Your task to perform on an android device: turn on the 12-hour format for clock Image 0: 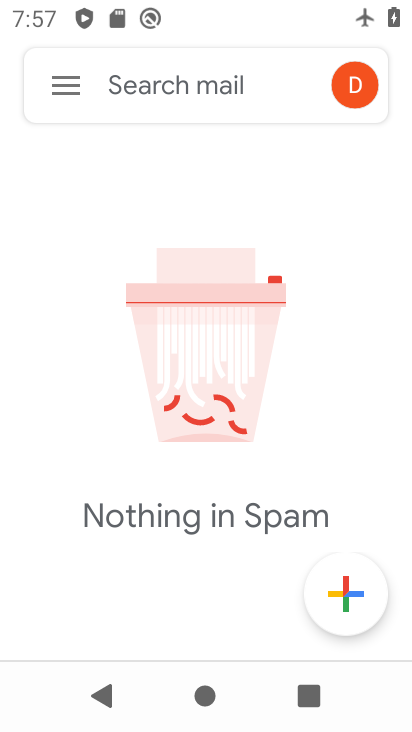
Step 0: press home button
Your task to perform on an android device: turn on the 12-hour format for clock Image 1: 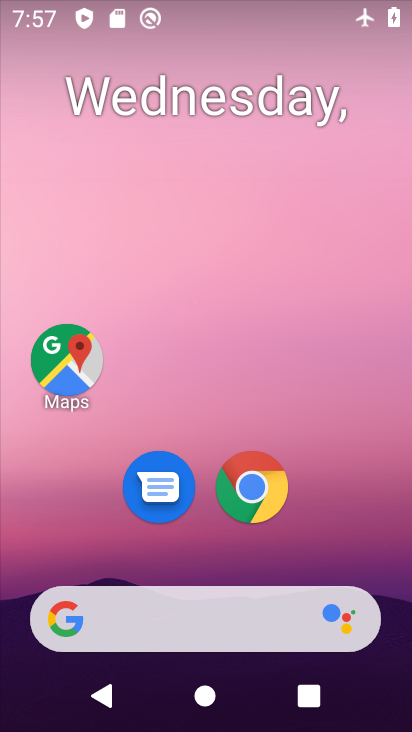
Step 1: drag from (350, 585) to (340, 10)
Your task to perform on an android device: turn on the 12-hour format for clock Image 2: 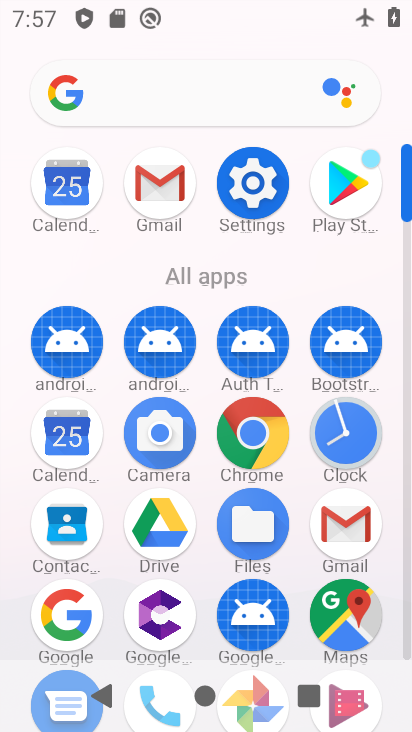
Step 2: click (339, 434)
Your task to perform on an android device: turn on the 12-hour format for clock Image 3: 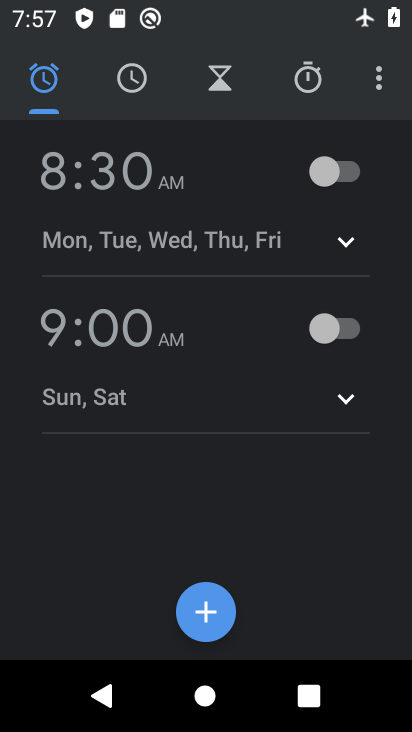
Step 3: click (377, 84)
Your task to perform on an android device: turn on the 12-hour format for clock Image 4: 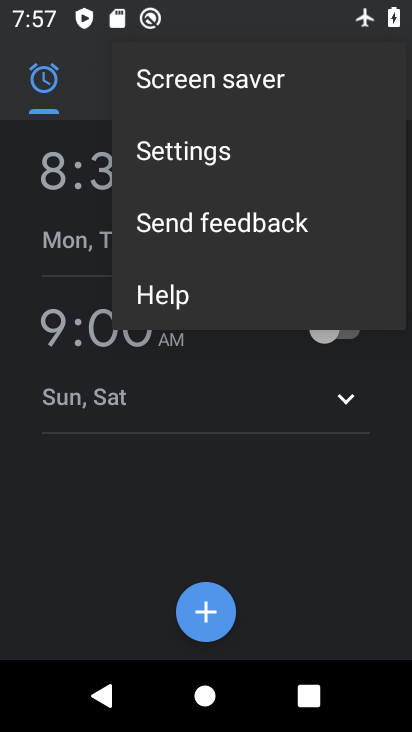
Step 4: click (175, 148)
Your task to perform on an android device: turn on the 12-hour format for clock Image 5: 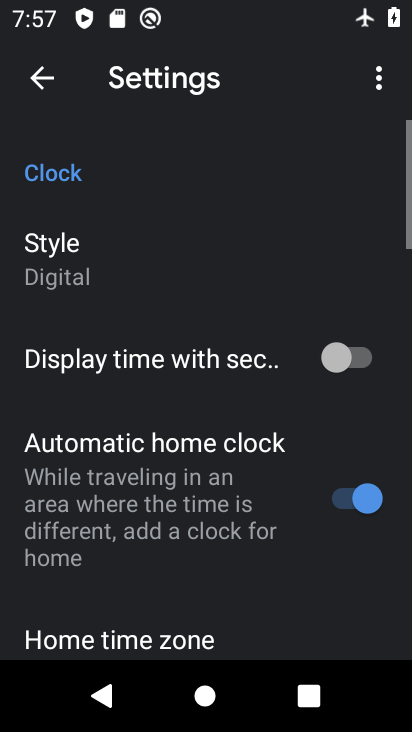
Step 5: drag from (199, 544) to (172, 106)
Your task to perform on an android device: turn on the 12-hour format for clock Image 6: 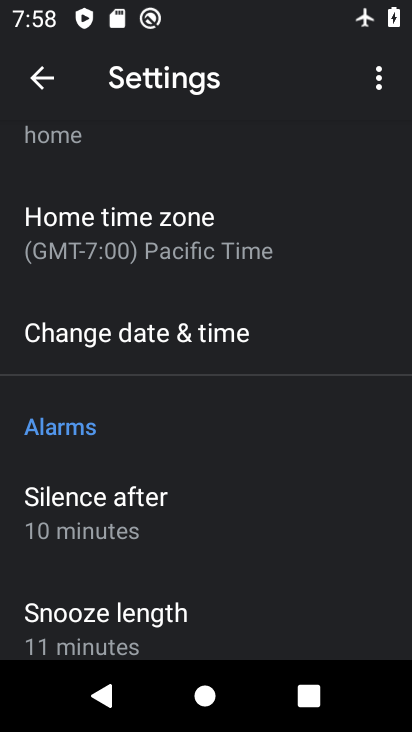
Step 6: click (137, 346)
Your task to perform on an android device: turn on the 12-hour format for clock Image 7: 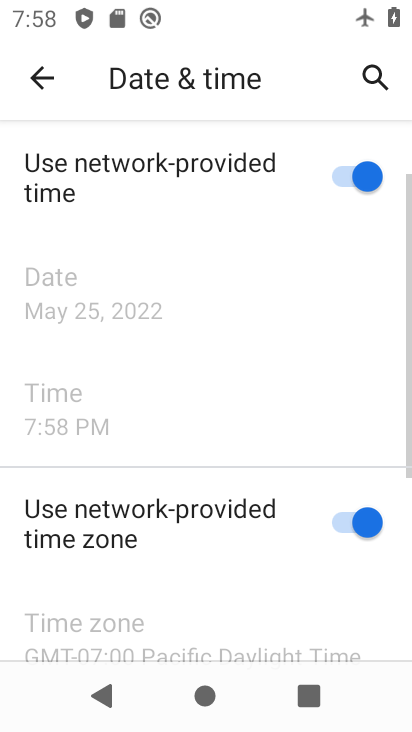
Step 7: task complete